Your task to perform on an android device: open app "Adobe Acrobat Reader" (install if not already installed) Image 0: 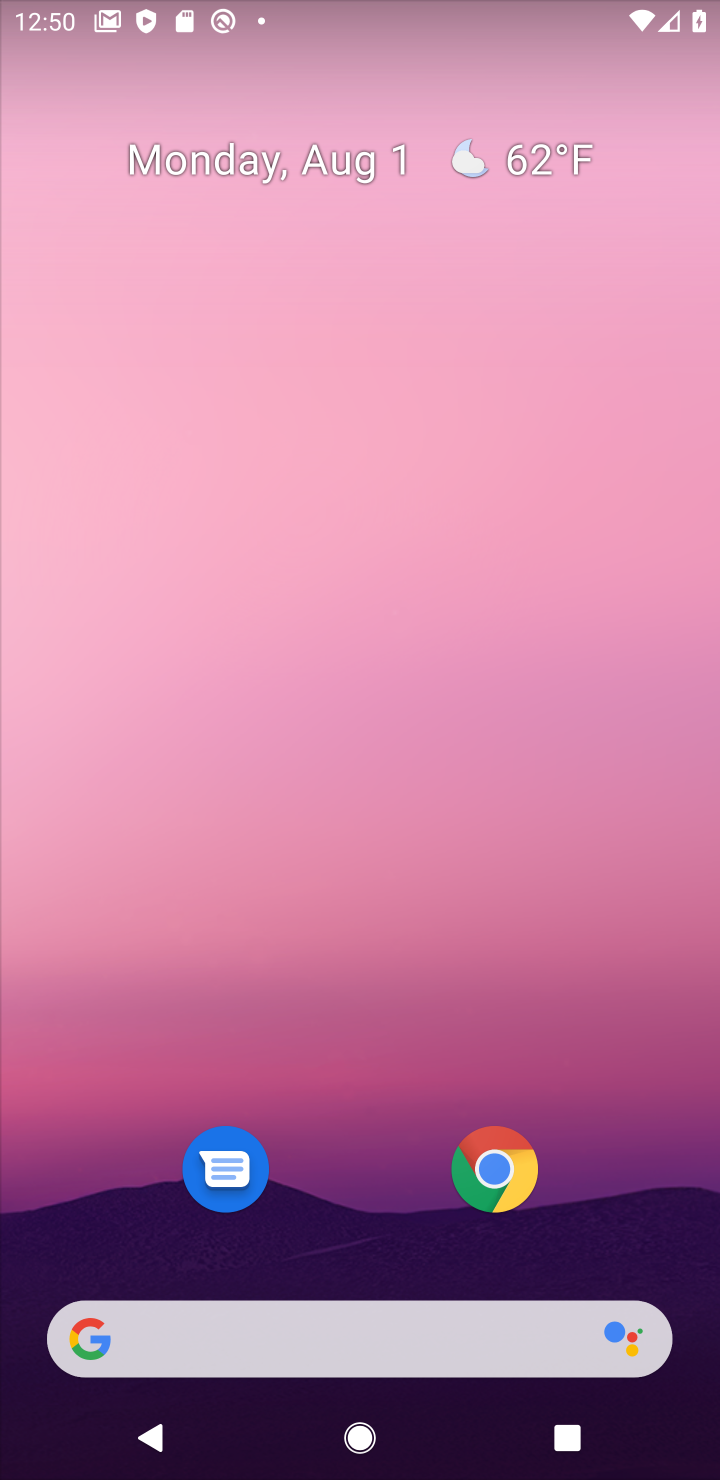
Step 0: drag from (322, 1268) to (290, 284)
Your task to perform on an android device: open app "Adobe Acrobat Reader" (install if not already installed) Image 1: 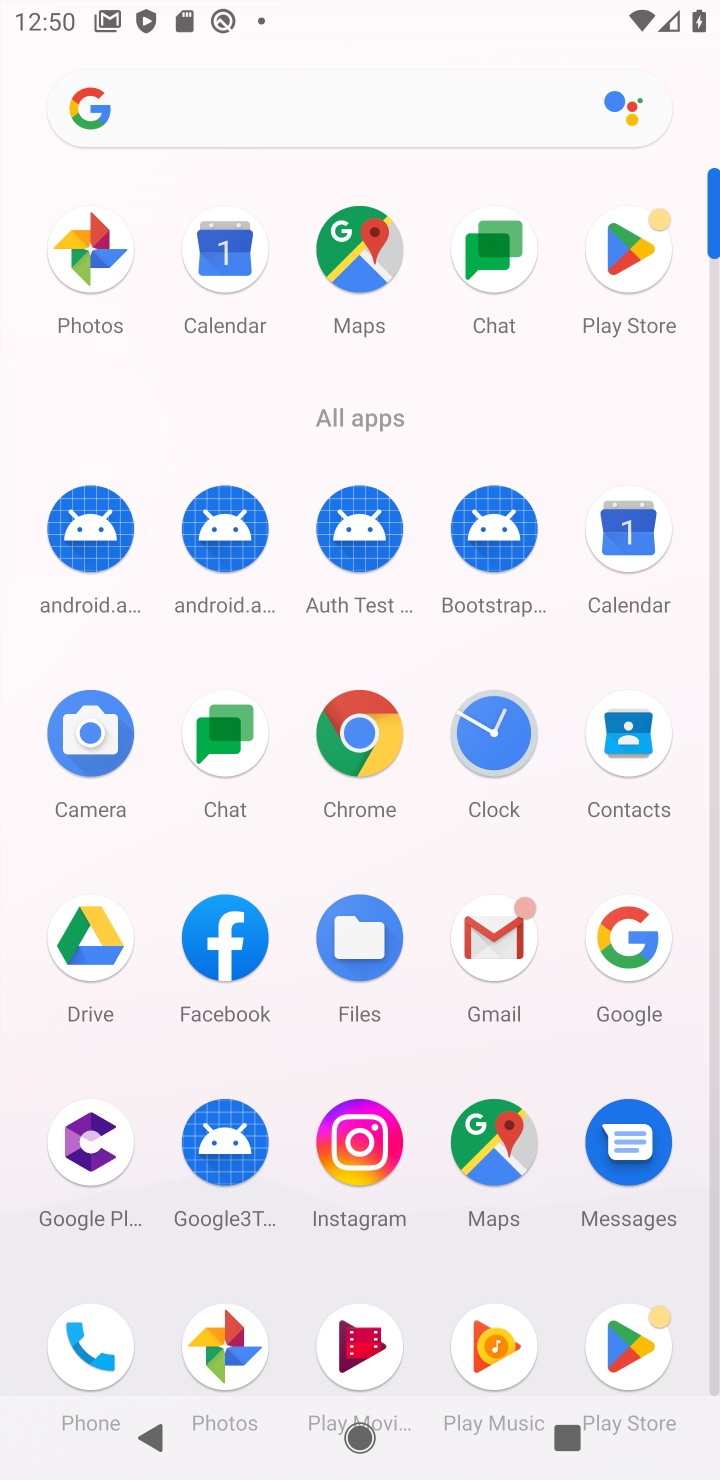
Step 1: click (634, 1350)
Your task to perform on an android device: open app "Adobe Acrobat Reader" (install if not already installed) Image 2: 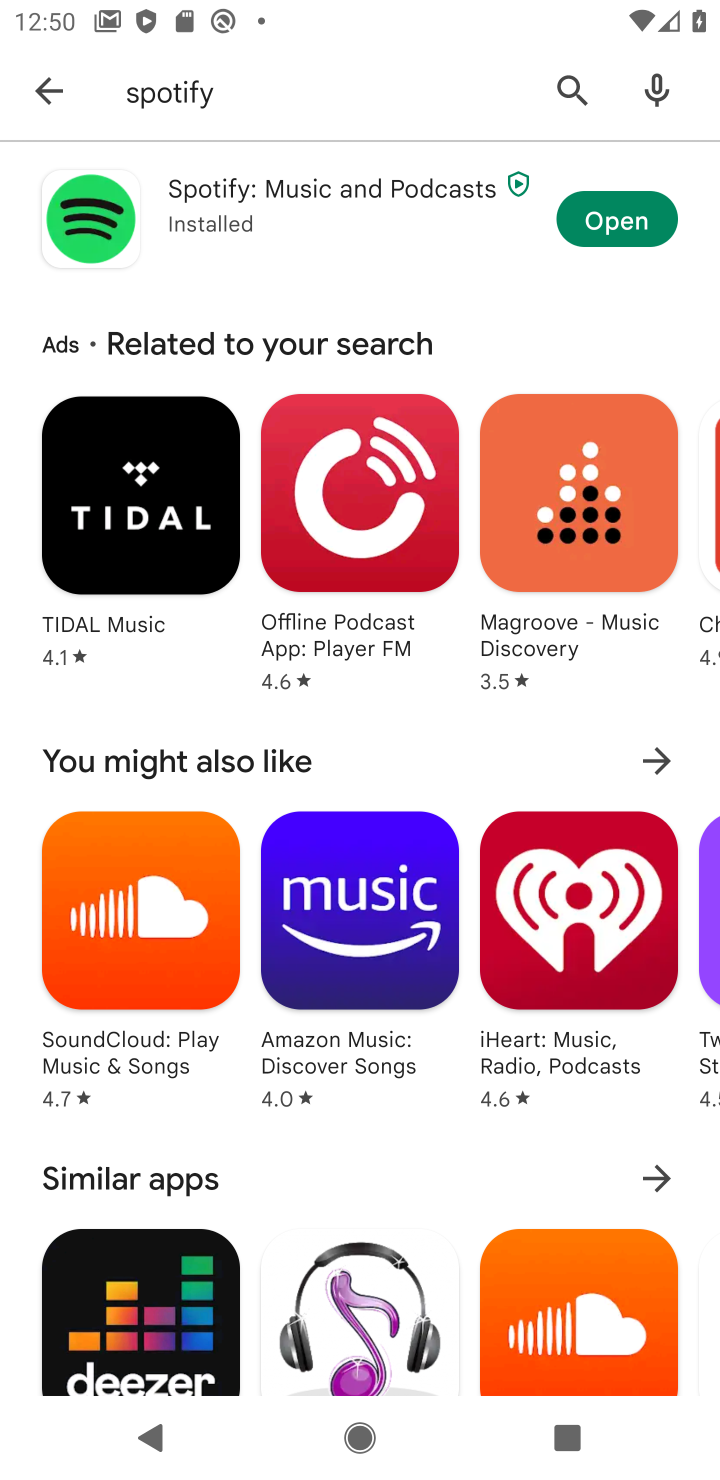
Step 2: click (44, 87)
Your task to perform on an android device: open app "Adobe Acrobat Reader" (install if not already installed) Image 3: 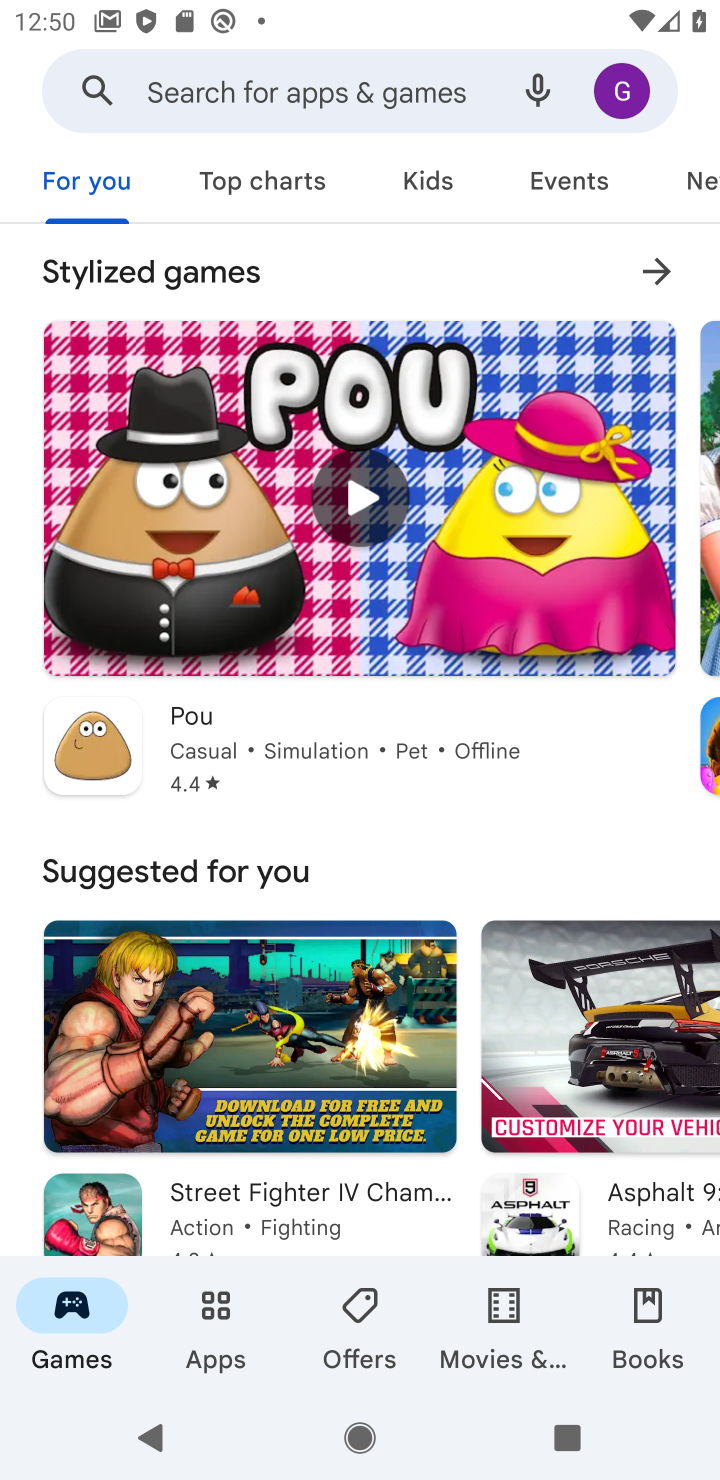
Step 3: click (284, 91)
Your task to perform on an android device: open app "Adobe Acrobat Reader" (install if not already installed) Image 4: 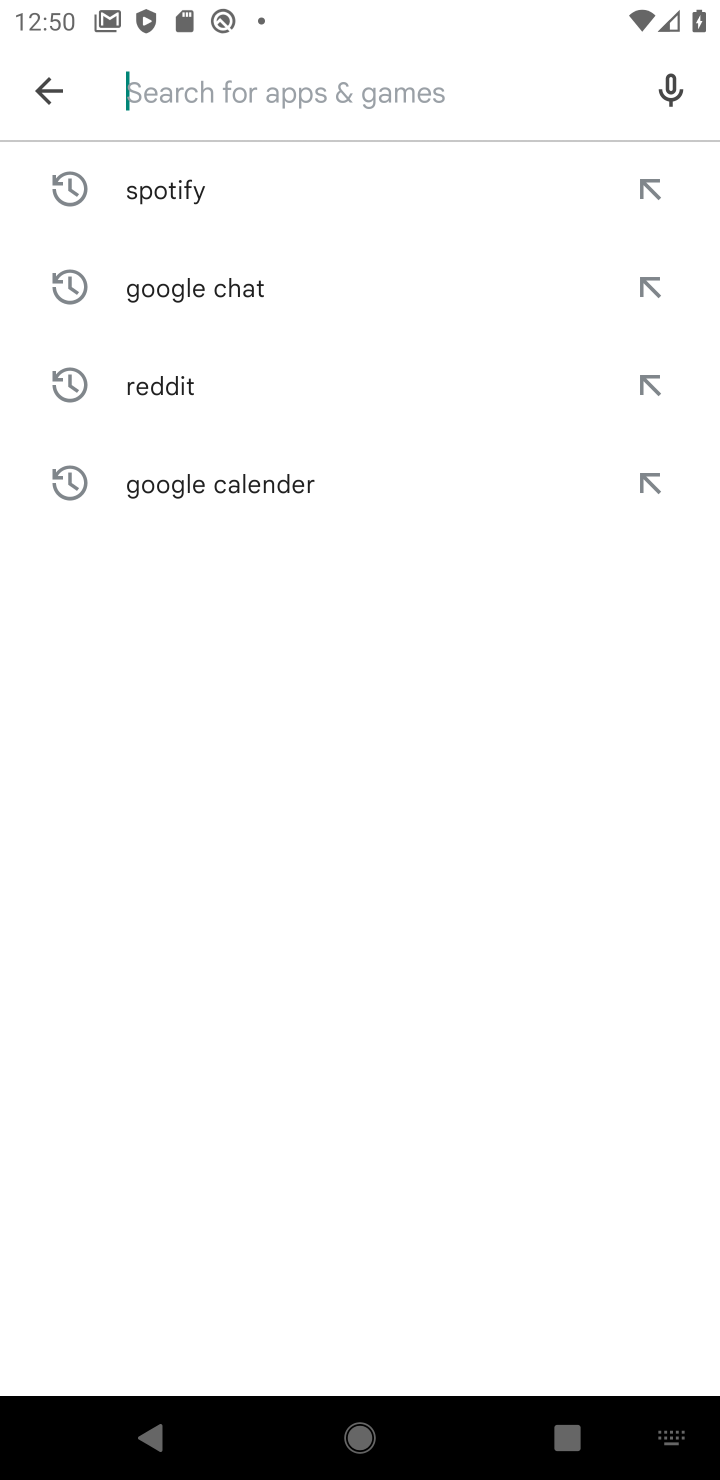
Step 4: type "Adobe Acrobat Reader"
Your task to perform on an android device: open app "Adobe Acrobat Reader" (install if not already installed) Image 5: 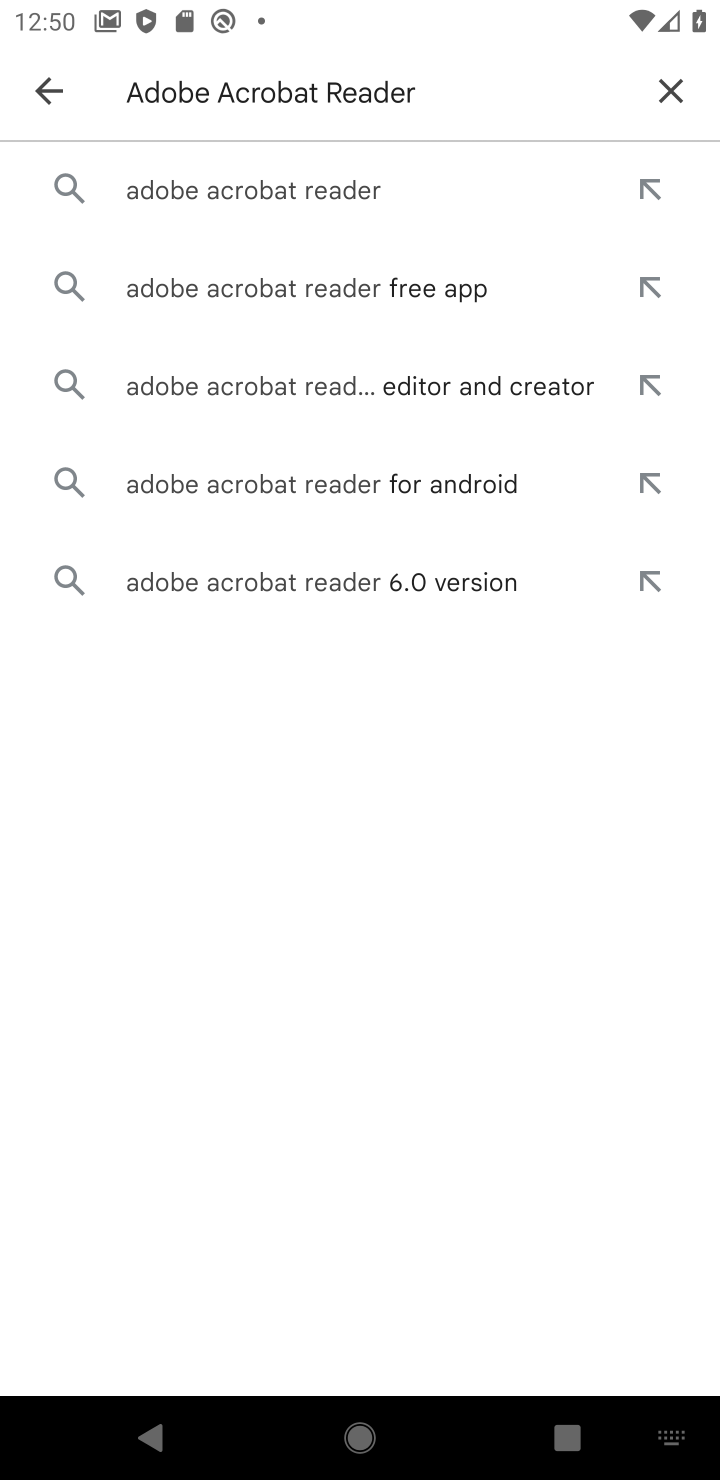
Step 5: click (296, 191)
Your task to perform on an android device: open app "Adobe Acrobat Reader" (install if not already installed) Image 6: 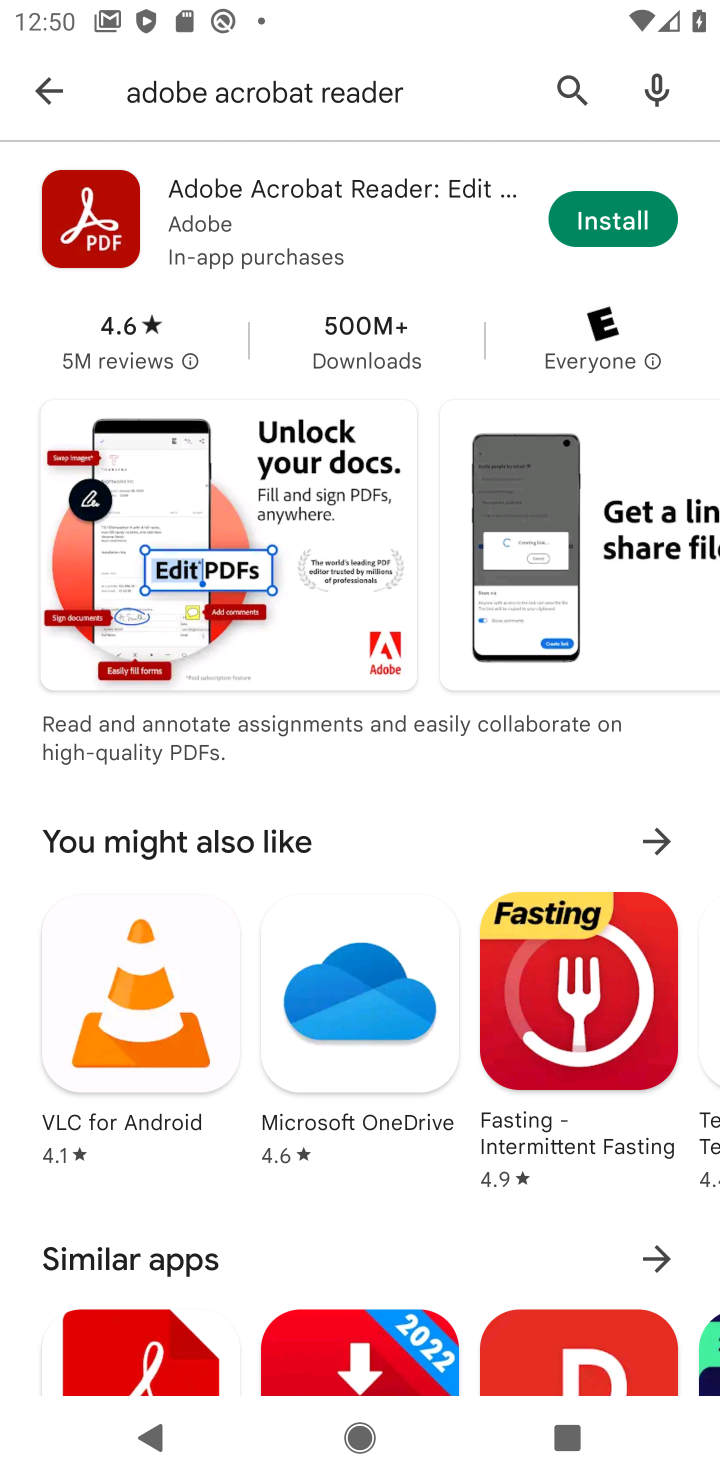
Step 6: click (634, 227)
Your task to perform on an android device: open app "Adobe Acrobat Reader" (install if not already installed) Image 7: 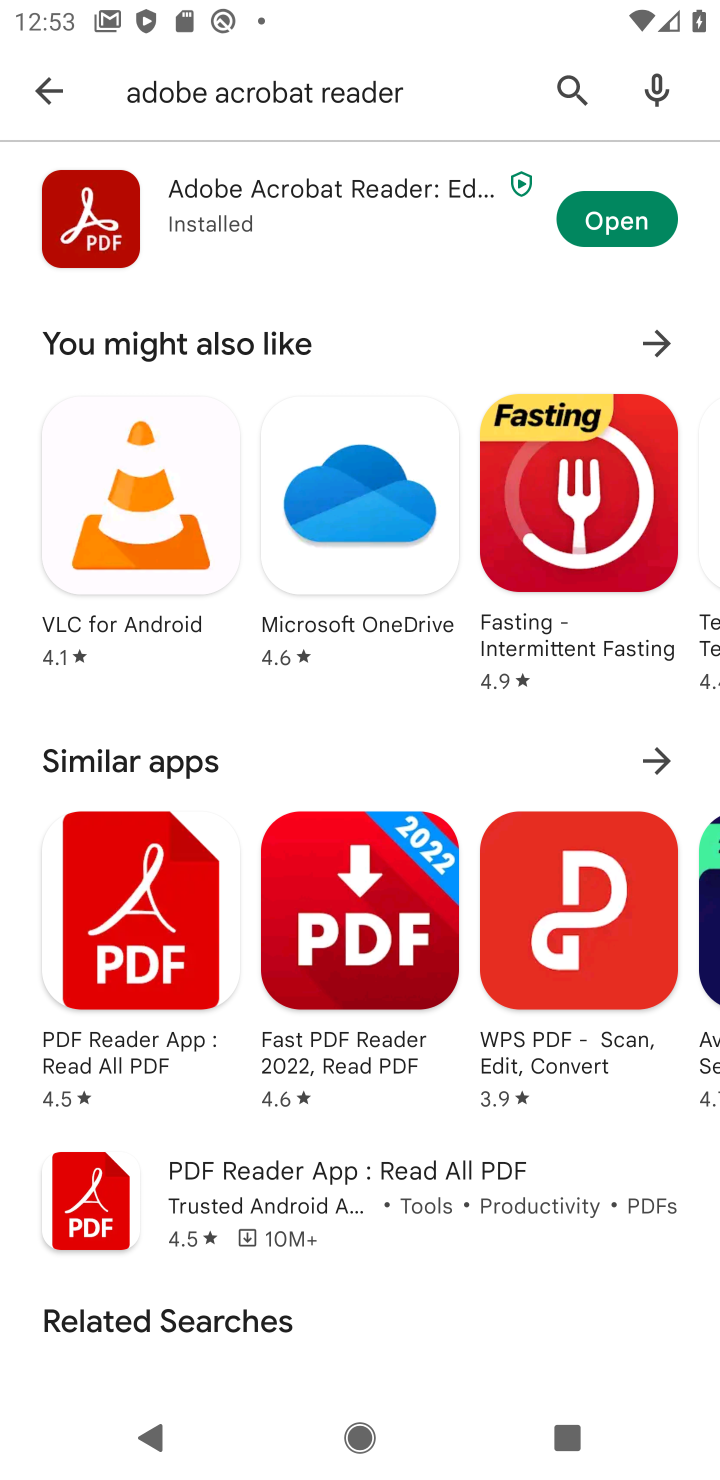
Step 7: click (595, 200)
Your task to perform on an android device: open app "Adobe Acrobat Reader" (install if not already installed) Image 8: 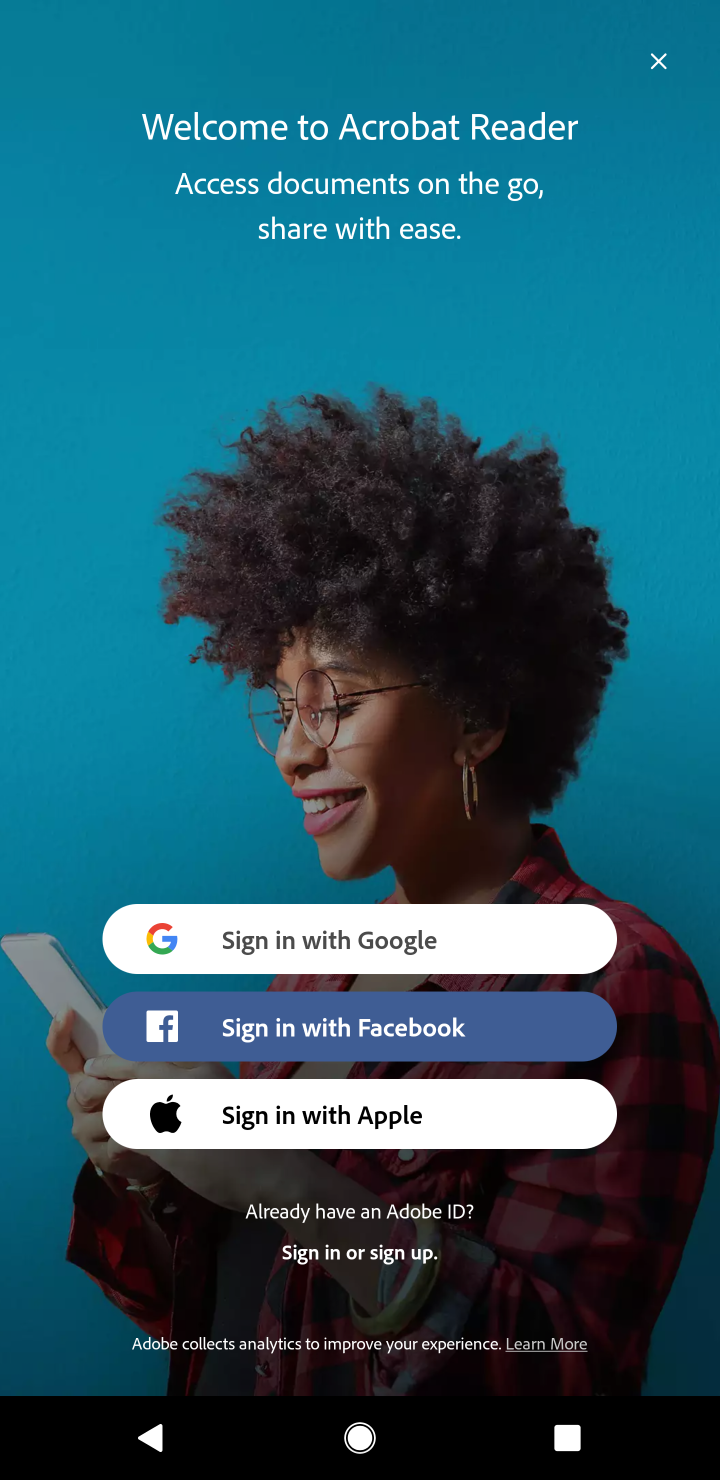
Step 8: task complete